Your task to perform on an android device: Turn off the flashlight Image 0: 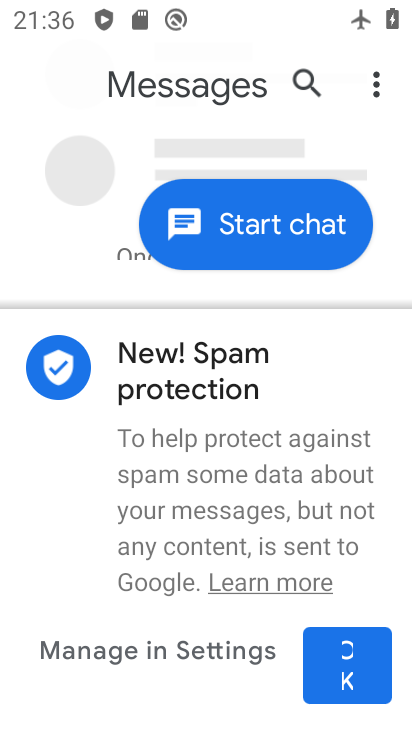
Step 0: press home button
Your task to perform on an android device: Turn off the flashlight Image 1: 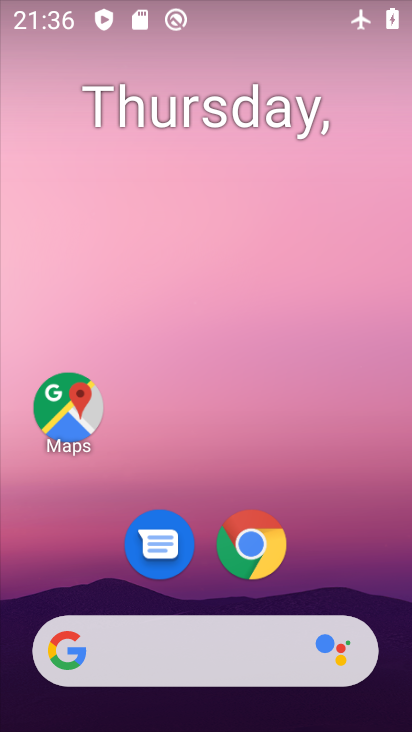
Step 1: task complete